Your task to perform on an android device: Search for vegetarian restaurants on Maps Image 0: 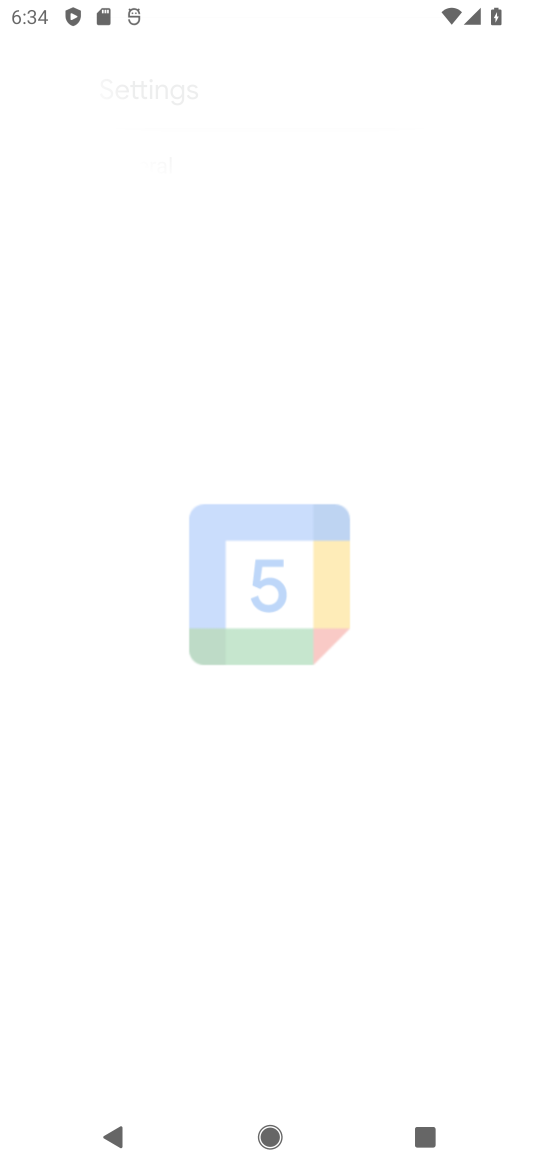
Step 0: press home button
Your task to perform on an android device: Search for vegetarian restaurants on Maps Image 1: 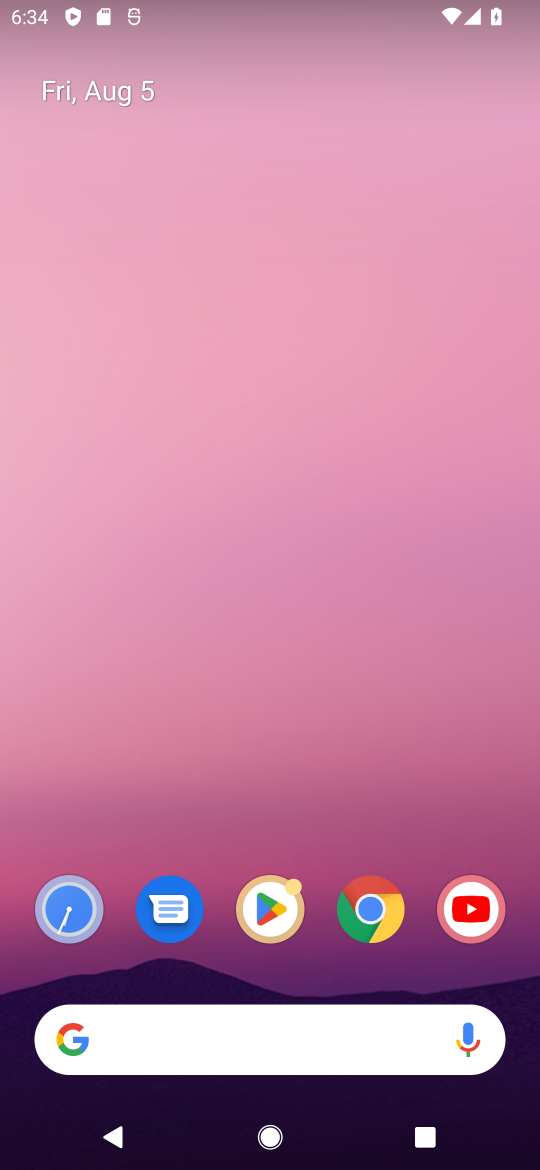
Step 1: drag from (436, 822) to (341, 233)
Your task to perform on an android device: Search for vegetarian restaurants on Maps Image 2: 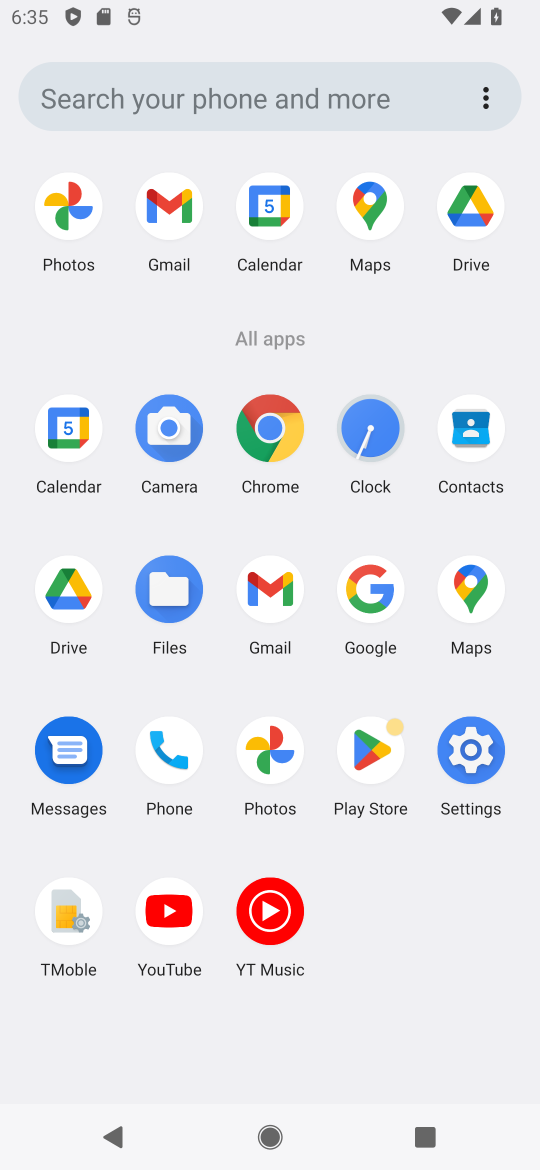
Step 2: click (466, 587)
Your task to perform on an android device: Search for vegetarian restaurants on Maps Image 3: 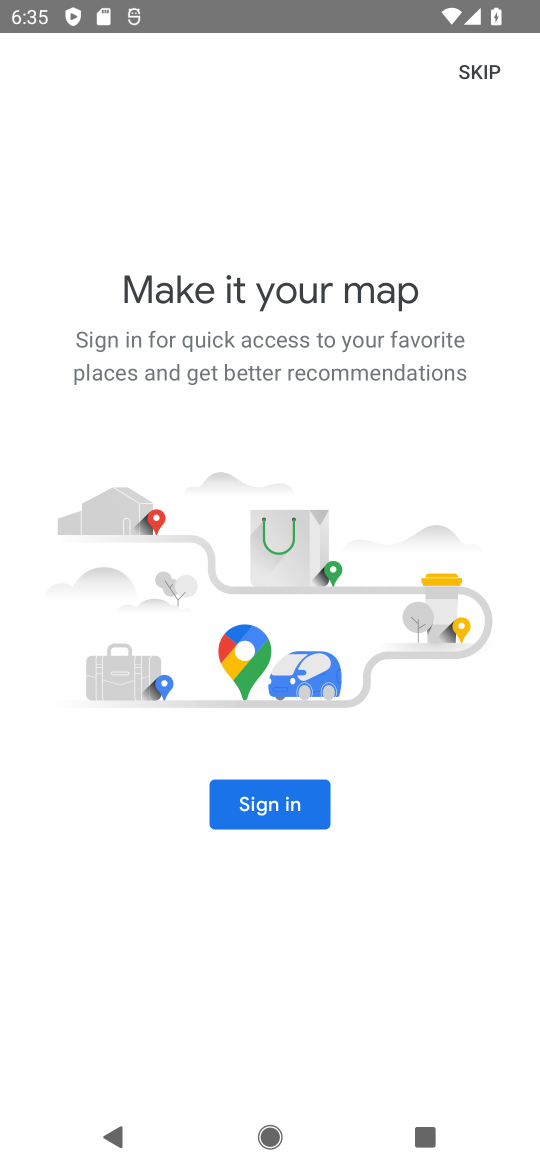
Step 3: click (469, 72)
Your task to perform on an android device: Search for vegetarian restaurants on Maps Image 4: 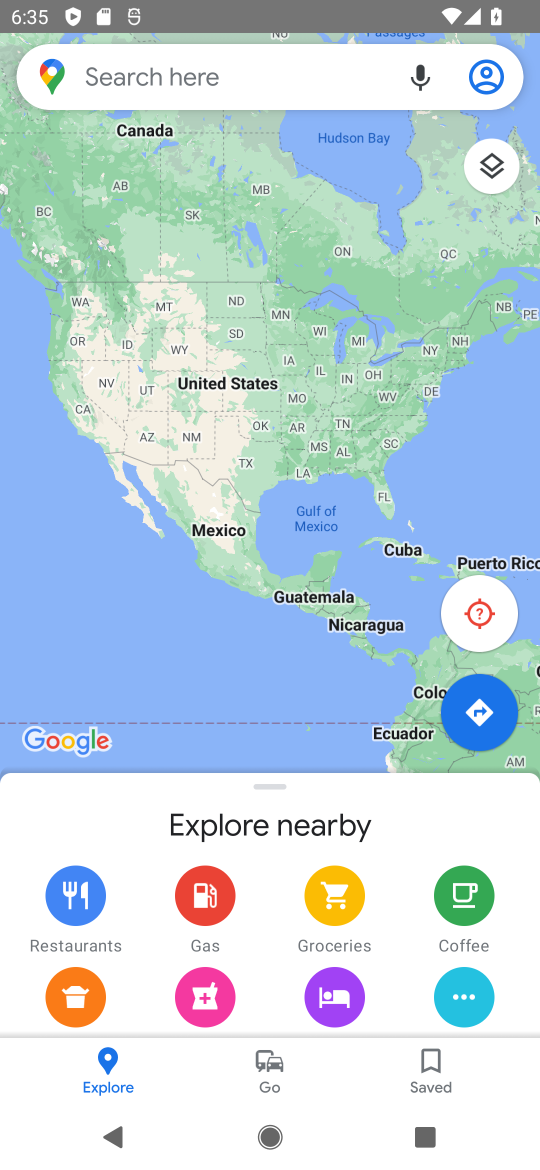
Step 4: click (177, 82)
Your task to perform on an android device: Search for vegetarian restaurants on Maps Image 5: 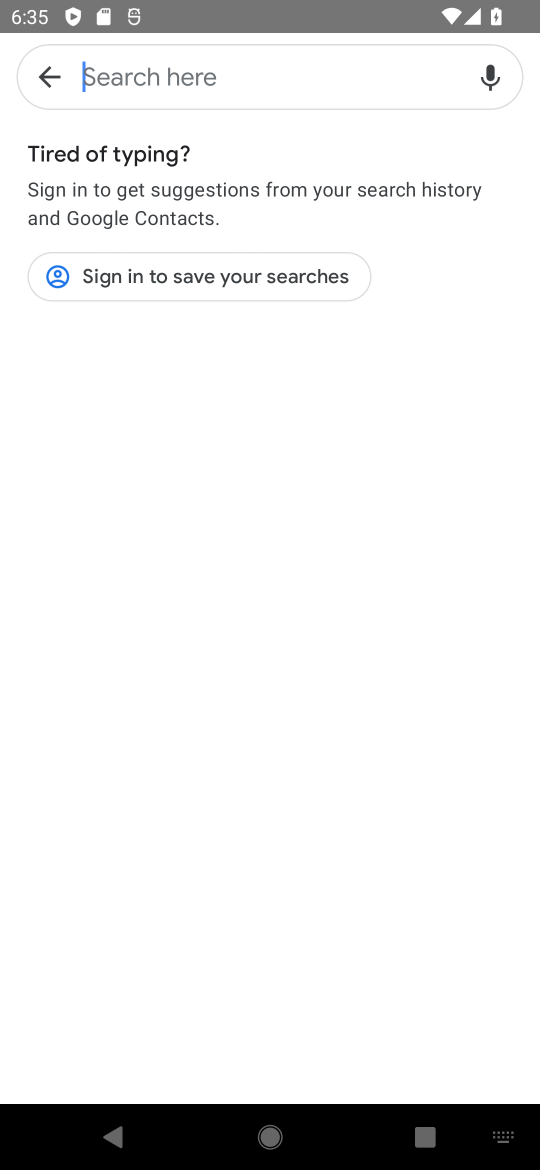
Step 5: type "vegetarian restaurants"
Your task to perform on an android device: Search for vegetarian restaurants on Maps Image 6: 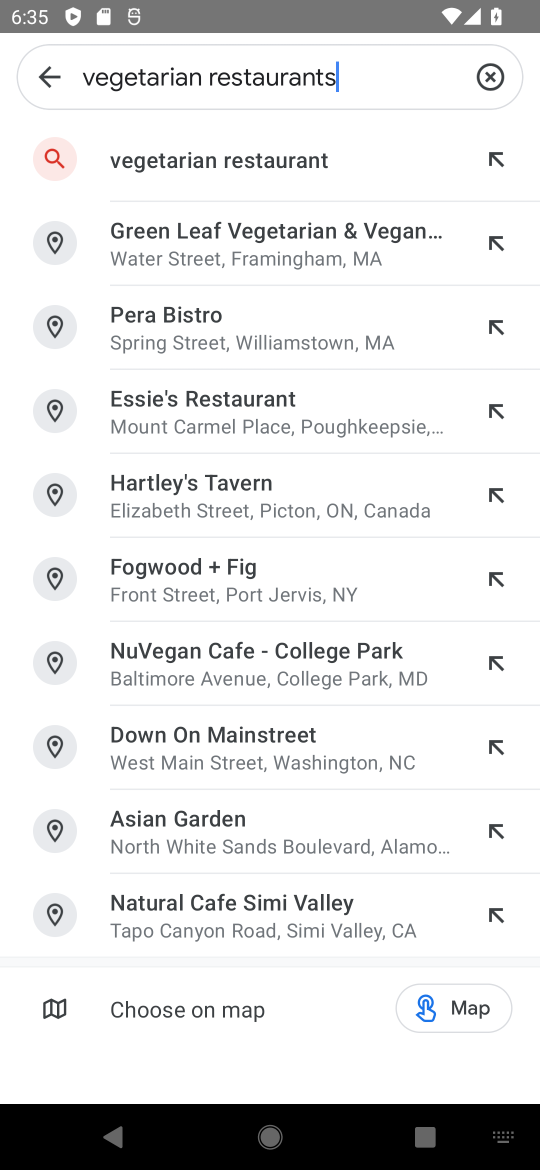
Step 6: press enter
Your task to perform on an android device: Search for vegetarian restaurants on Maps Image 7: 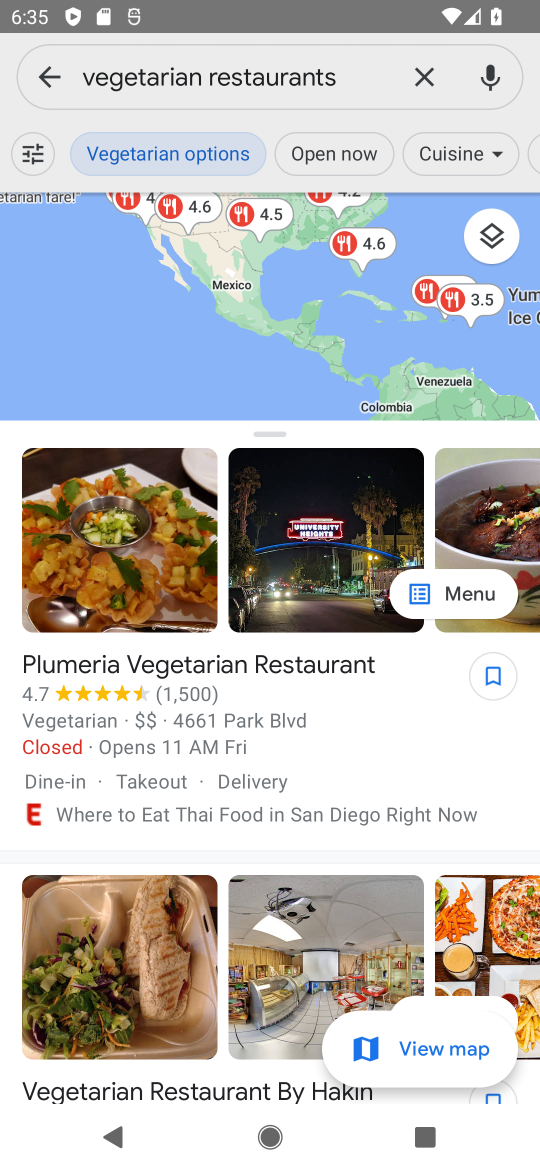
Step 7: task complete